Your task to perform on an android device: empty trash in google photos Image 0: 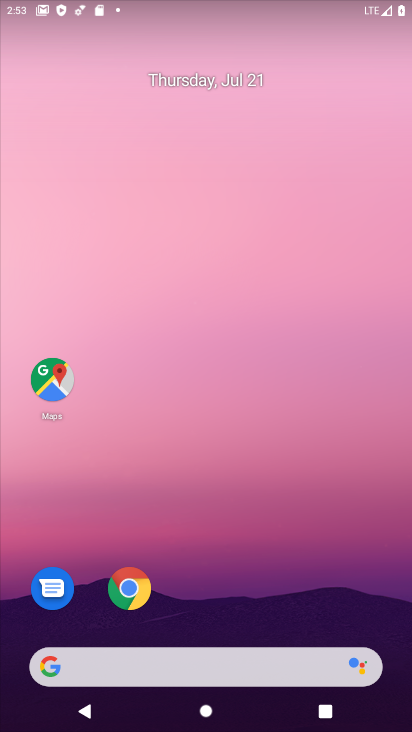
Step 0: press home button
Your task to perform on an android device: empty trash in google photos Image 1: 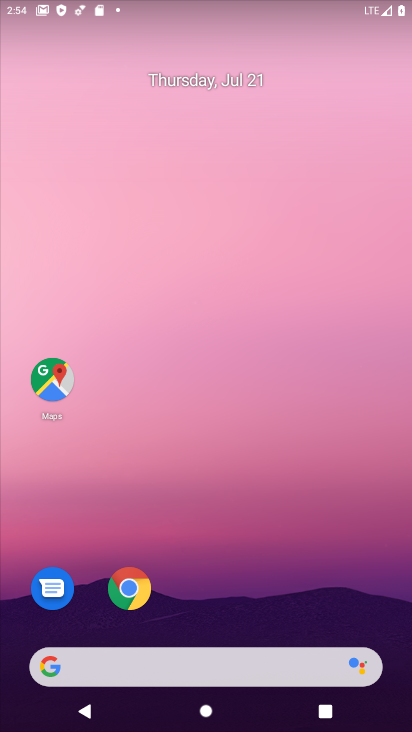
Step 1: drag from (269, 140) to (287, 10)
Your task to perform on an android device: empty trash in google photos Image 2: 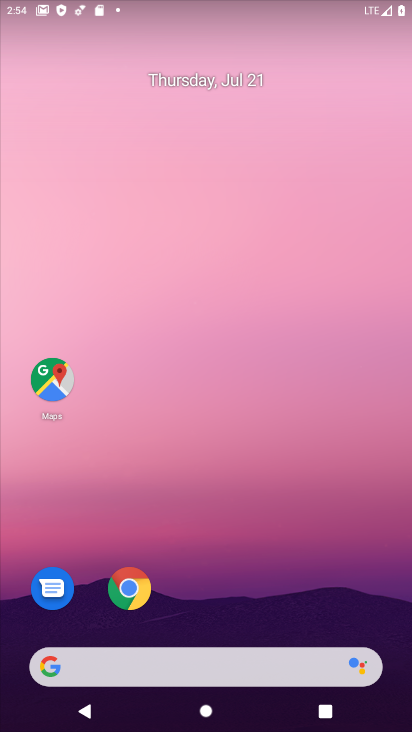
Step 2: drag from (300, 562) to (275, 95)
Your task to perform on an android device: empty trash in google photos Image 3: 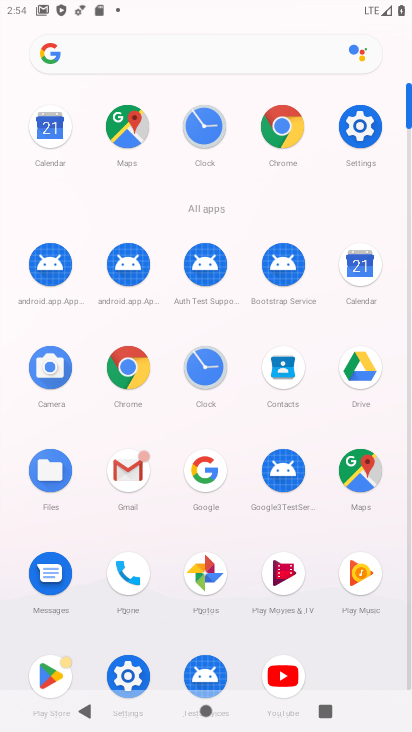
Step 3: click (199, 563)
Your task to perform on an android device: empty trash in google photos Image 4: 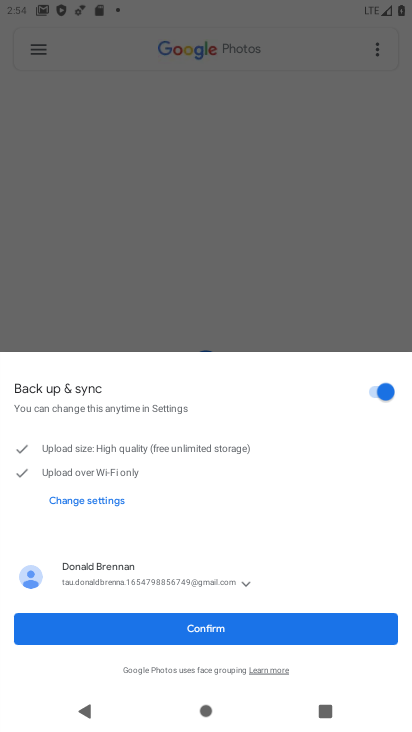
Step 4: click (291, 617)
Your task to perform on an android device: empty trash in google photos Image 5: 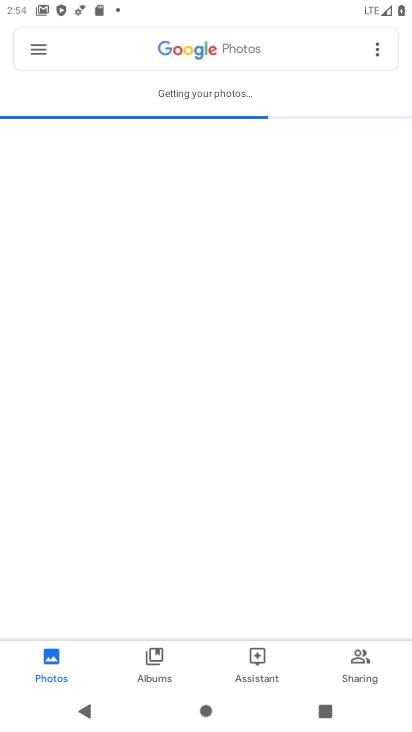
Step 5: click (40, 51)
Your task to perform on an android device: empty trash in google photos Image 6: 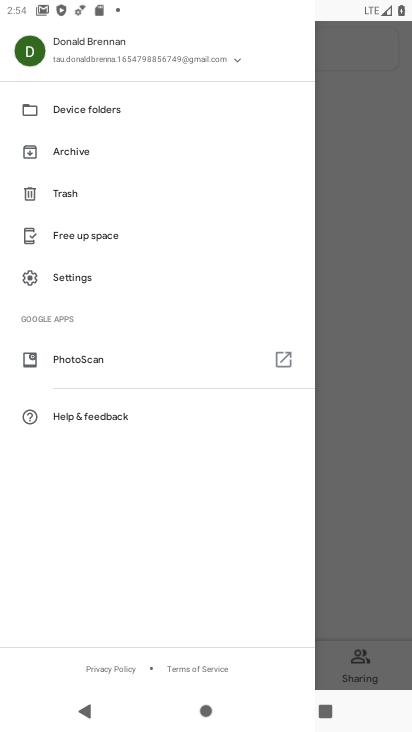
Step 6: click (68, 195)
Your task to perform on an android device: empty trash in google photos Image 7: 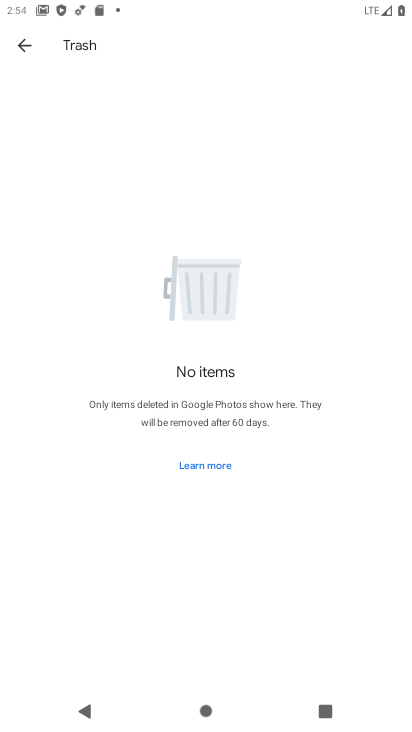
Step 7: task complete